Your task to perform on an android device: Open privacy settings Image 0: 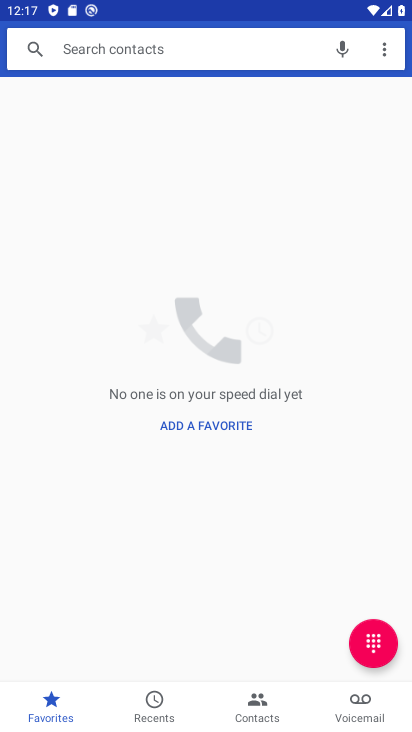
Step 0: press home button
Your task to perform on an android device: Open privacy settings Image 1: 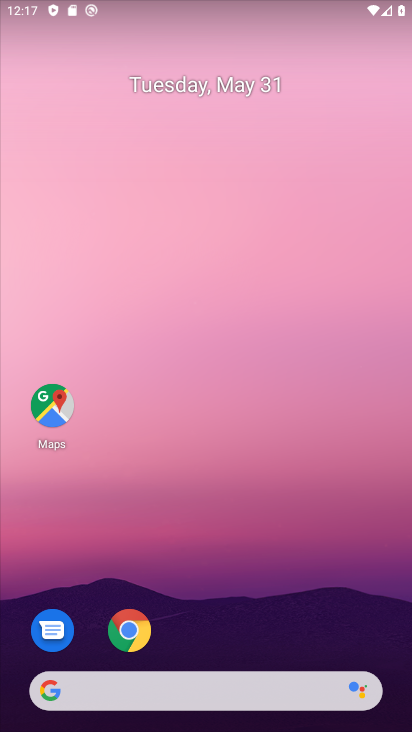
Step 1: drag from (174, 565) to (206, 310)
Your task to perform on an android device: Open privacy settings Image 2: 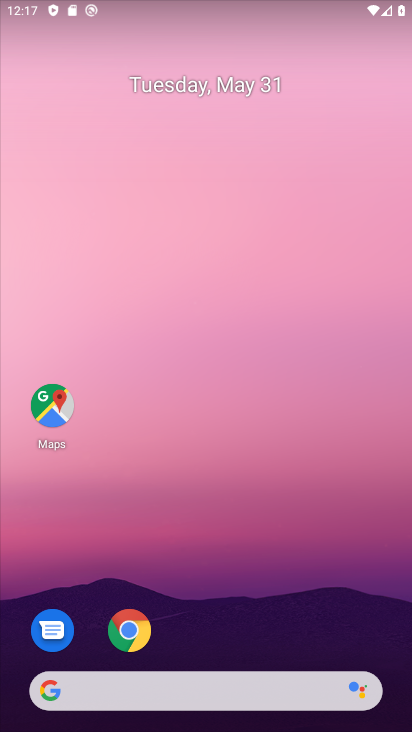
Step 2: drag from (198, 568) to (214, 320)
Your task to perform on an android device: Open privacy settings Image 3: 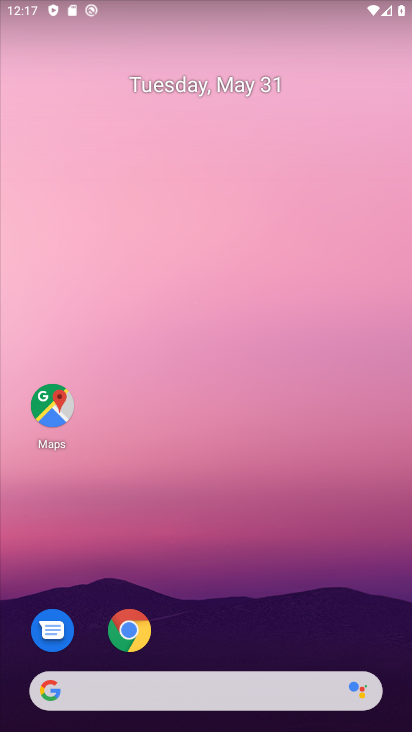
Step 3: drag from (218, 603) to (301, 138)
Your task to perform on an android device: Open privacy settings Image 4: 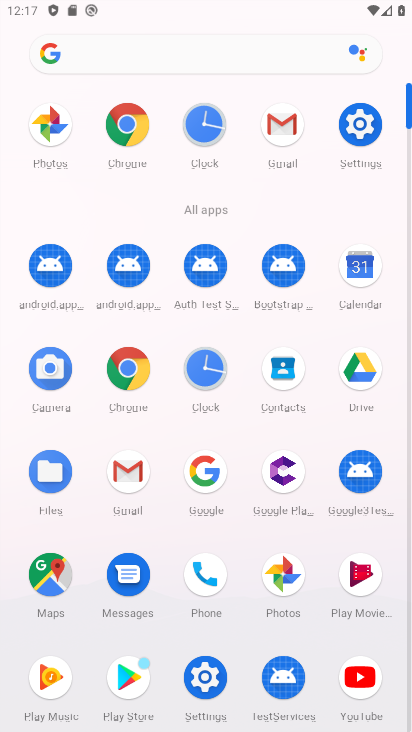
Step 4: click (359, 126)
Your task to perform on an android device: Open privacy settings Image 5: 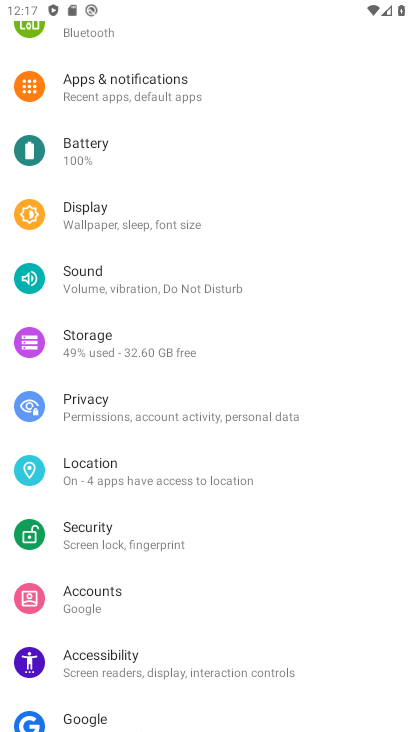
Step 5: click (121, 402)
Your task to perform on an android device: Open privacy settings Image 6: 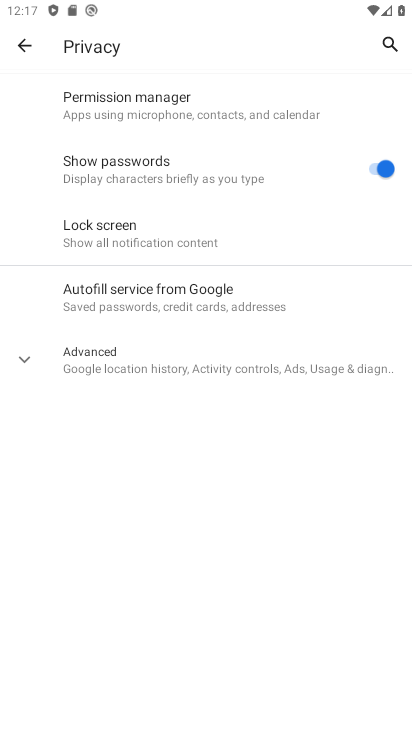
Step 6: task complete